Your task to perform on an android device: toggle javascript in the chrome app Image 0: 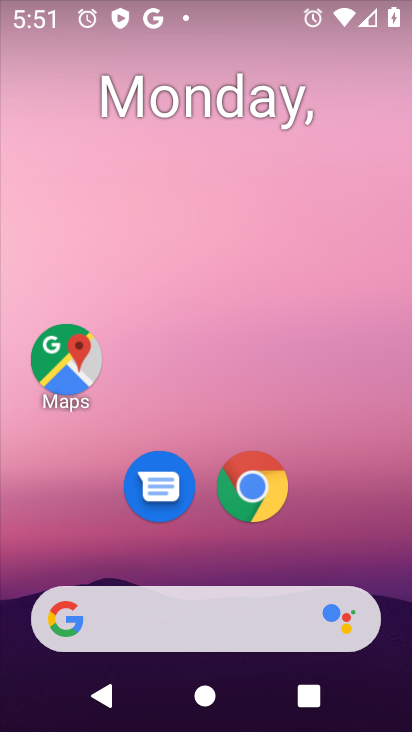
Step 0: click (261, 491)
Your task to perform on an android device: toggle javascript in the chrome app Image 1: 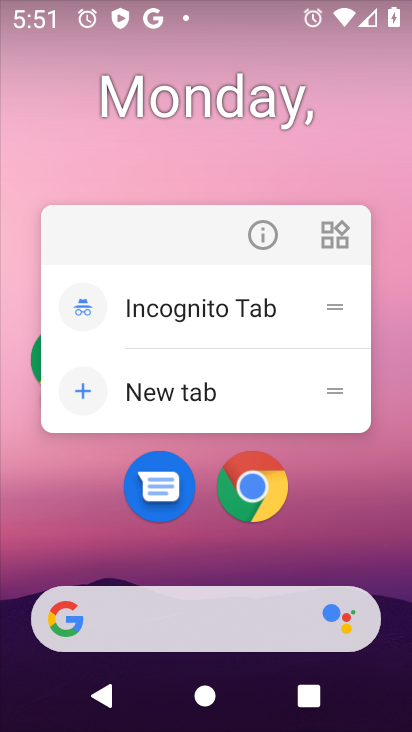
Step 1: click (261, 491)
Your task to perform on an android device: toggle javascript in the chrome app Image 2: 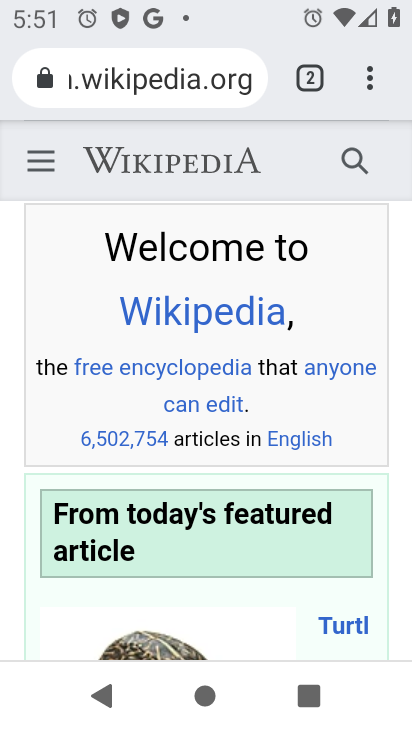
Step 2: drag from (372, 79) to (139, 550)
Your task to perform on an android device: toggle javascript in the chrome app Image 3: 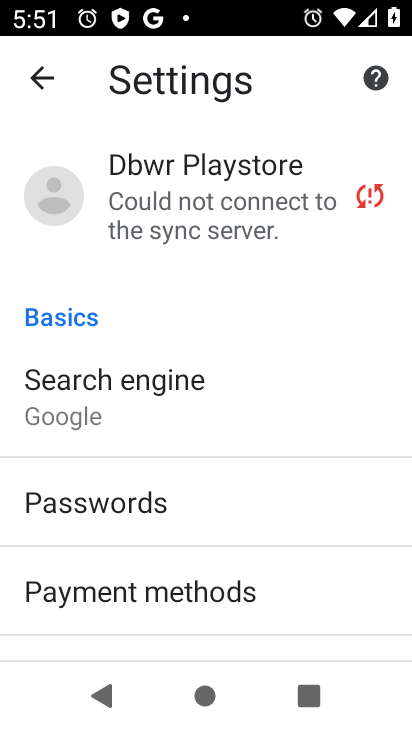
Step 3: drag from (311, 592) to (326, 101)
Your task to perform on an android device: toggle javascript in the chrome app Image 4: 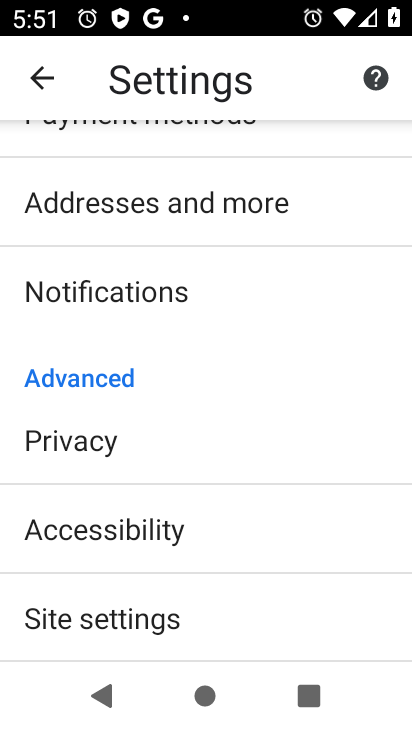
Step 4: click (193, 608)
Your task to perform on an android device: toggle javascript in the chrome app Image 5: 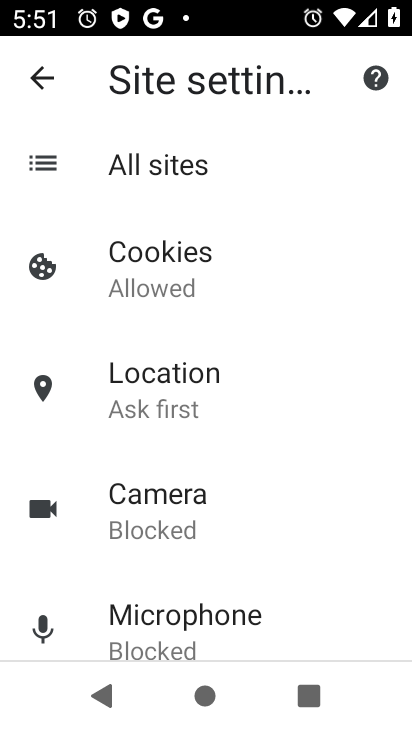
Step 5: drag from (201, 489) to (238, 230)
Your task to perform on an android device: toggle javascript in the chrome app Image 6: 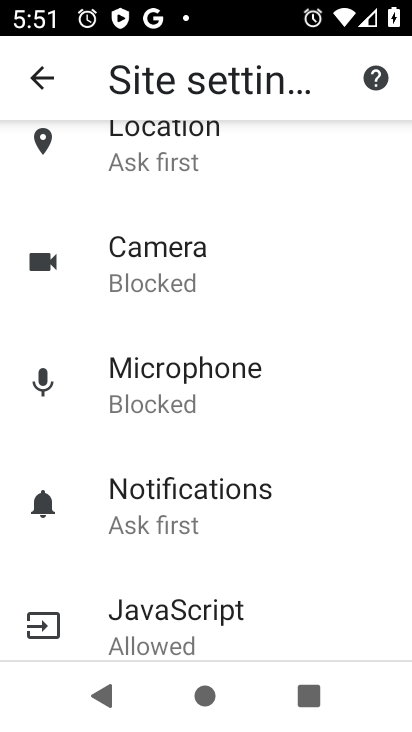
Step 6: click (193, 610)
Your task to perform on an android device: toggle javascript in the chrome app Image 7: 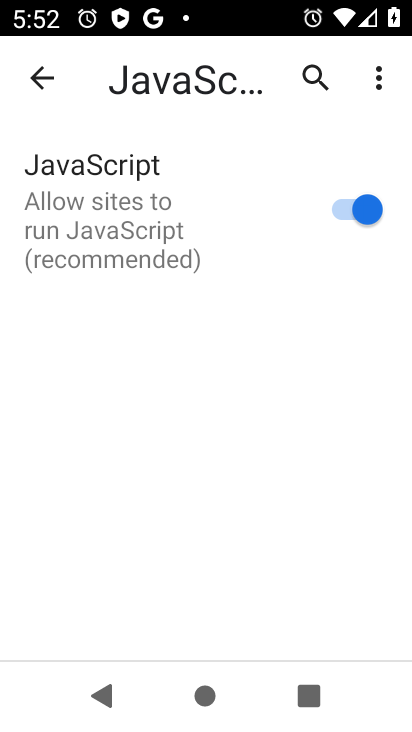
Step 7: click (366, 208)
Your task to perform on an android device: toggle javascript in the chrome app Image 8: 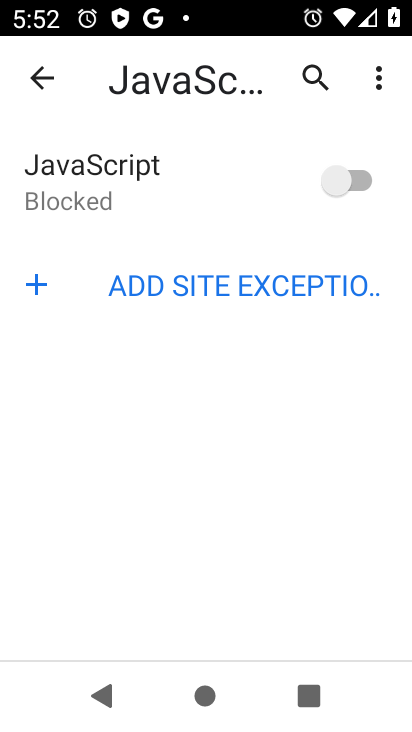
Step 8: task complete